Your task to perform on an android device: create a new album in the google photos Image 0: 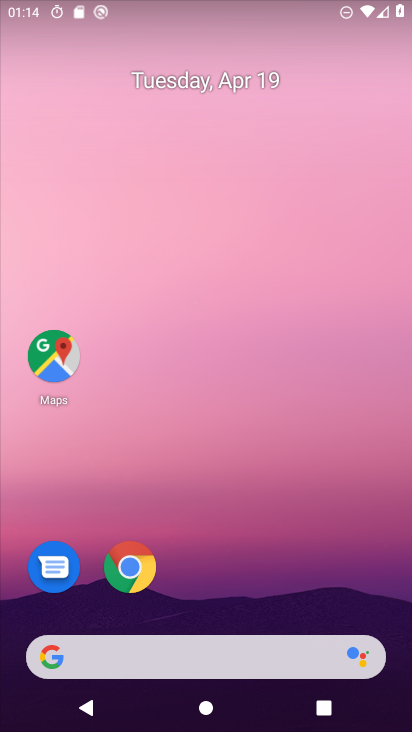
Step 0: drag from (240, 575) to (236, 106)
Your task to perform on an android device: create a new album in the google photos Image 1: 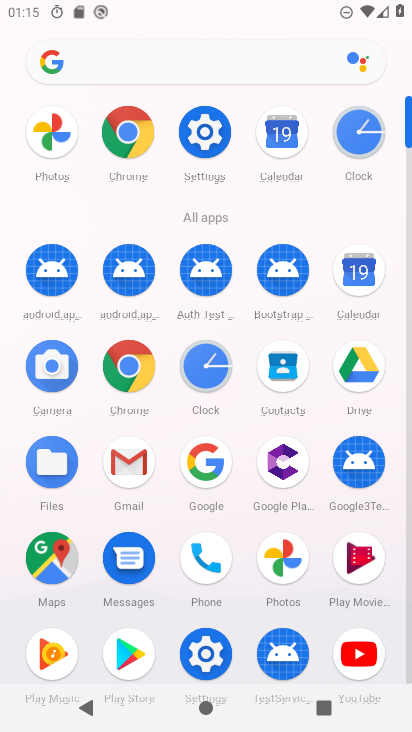
Step 1: click (263, 556)
Your task to perform on an android device: create a new album in the google photos Image 2: 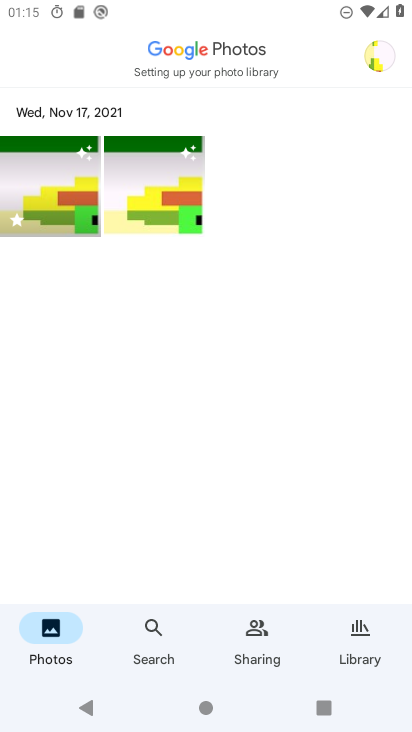
Step 2: click (384, 59)
Your task to perform on an android device: create a new album in the google photos Image 3: 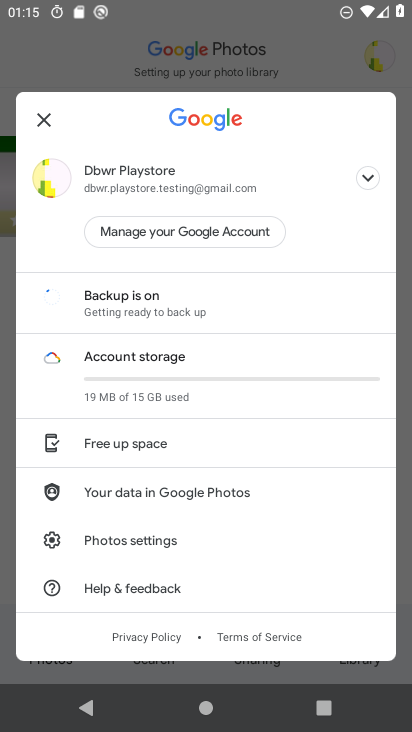
Step 3: drag from (193, 526) to (272, 157)
Your task to perform on an android device: create a new album in the google photos Image 4: 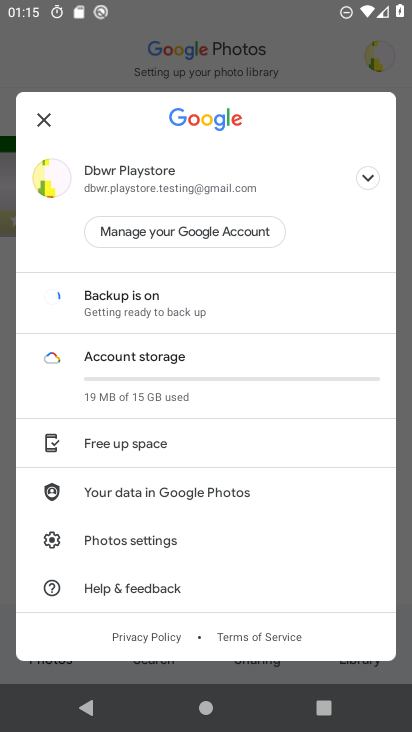
Step 4: click (41, 118)
Your task to perform on an android device: create a new album in the google photos Image 5: 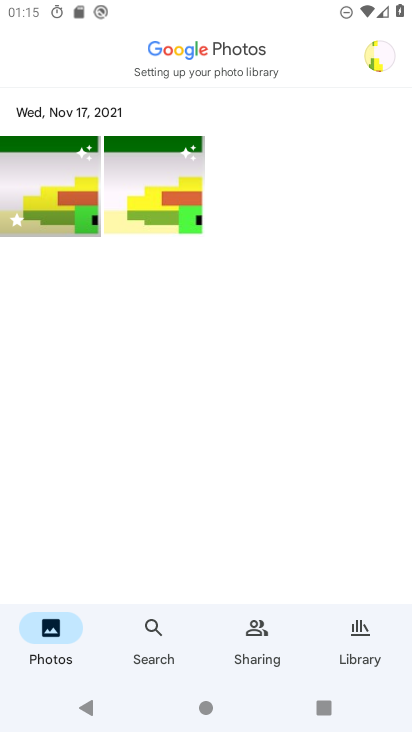
Step 5: click (301, 251)
Your task to perform on an android device: create a new album in the google photos Image 6: 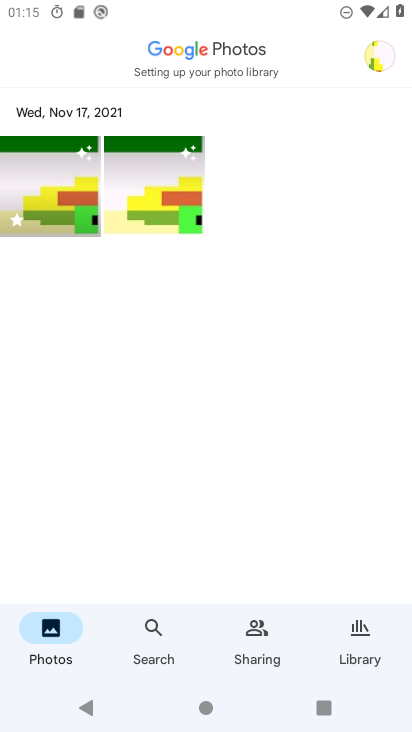
Step 6: click (359, 643)
Your task to perform on an android device: create a new album in the google photos Image 7: 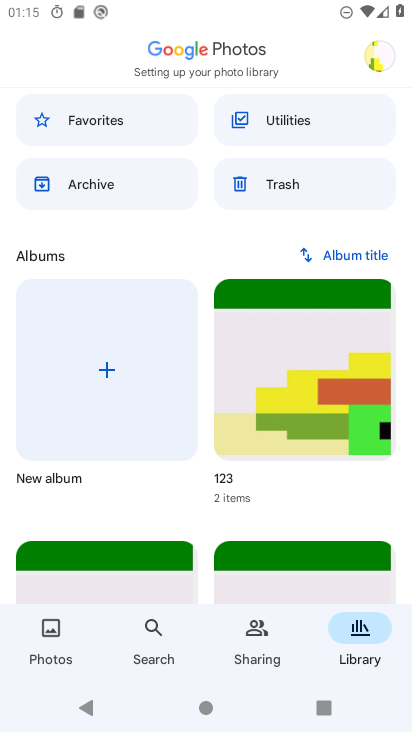
Step 7: click (115, 395)
Your task to perform on an android device: create a new album in the google photos Image 8: 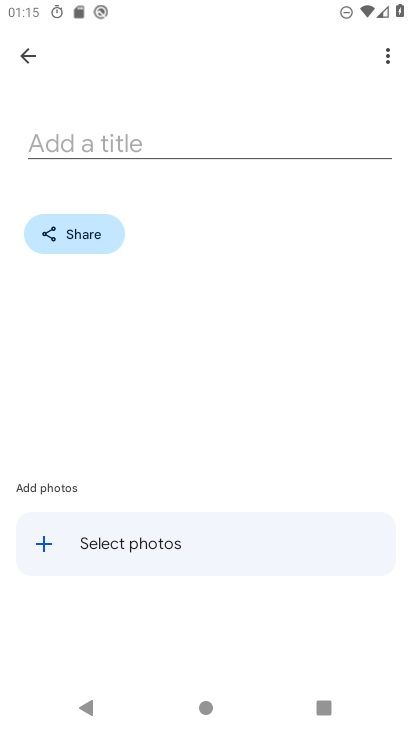
Step 8: click (174, 136)
Your task to perform on an android device: create a new album in the google photos Image 9: 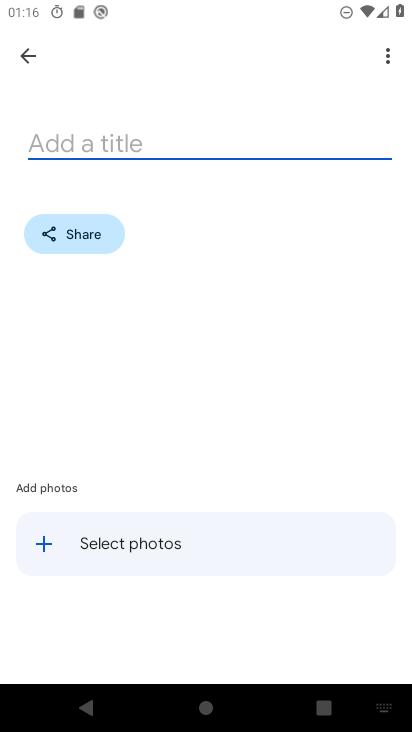
Step 9: type "halmiti"
Your task to perform on an android device: create a new album in the google photos Image 10: 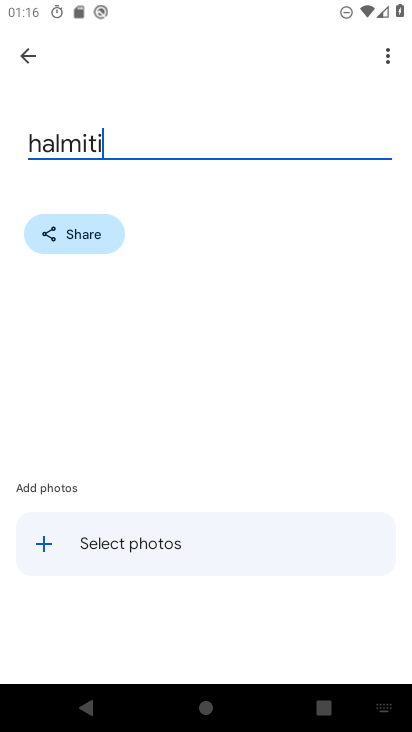
Step 10: press enter
Your task to perform on an android device: create a new album in the google photos Image 11: 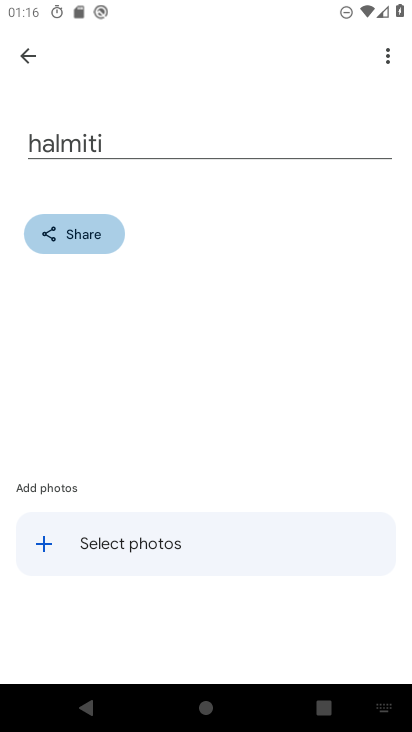
Step 11: click (205, 536)
Your task to perform on an android device: create a new album in the google photos Image 12: 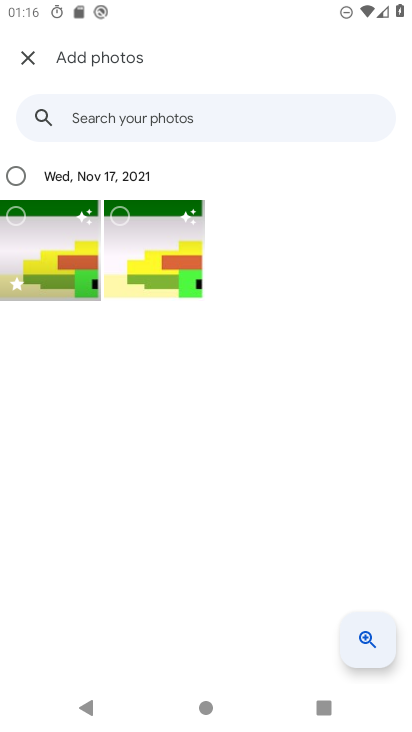
Step 12: click (63, 235)
Your task to perform on an android device: create a new album in the google photos Image 13: 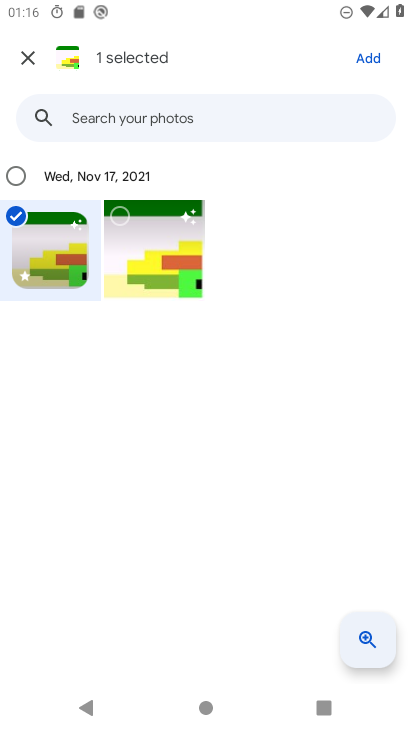
Step 13: click (367, 53)
Your task to perform on an android device: create a new album in the google photos Image 14: 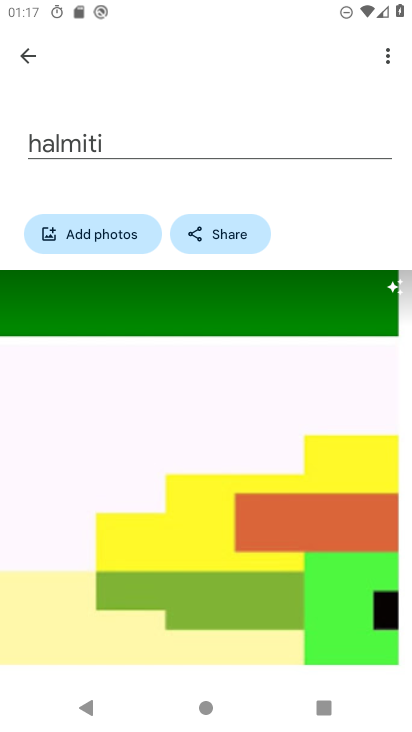
Step 14: task complete